Your task to perform on an android device: check the backup settings in the google photos Image 0: 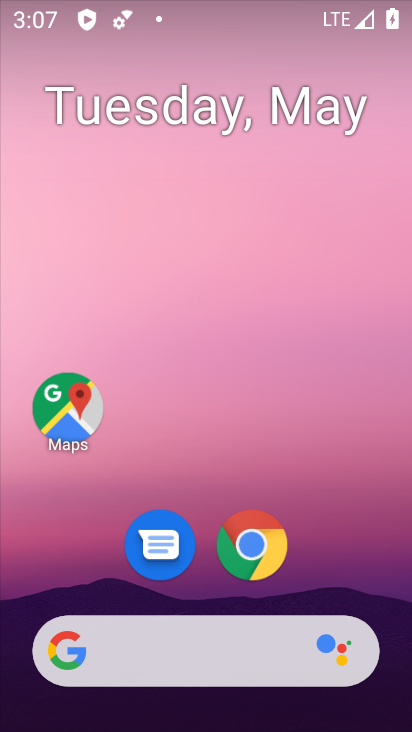
Step 0: drag from (328, 559) to (293, 203)
Your task to perform on an android device: check the backup settings in the google photos Image 1: 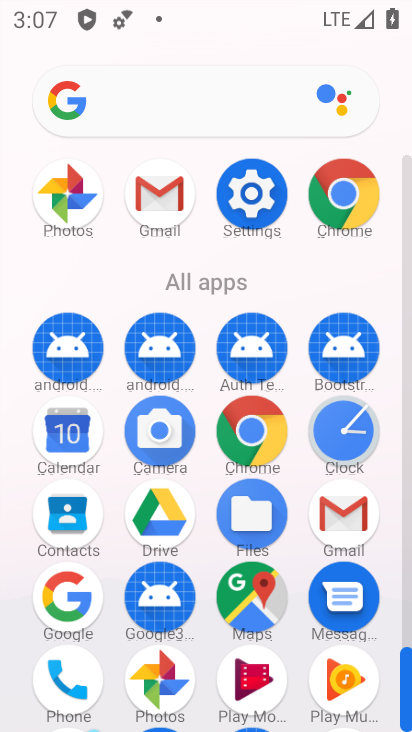
Step 1: click (72, 198)
Your task to perform on an android device: check the backup settings in the google photos Image 2: 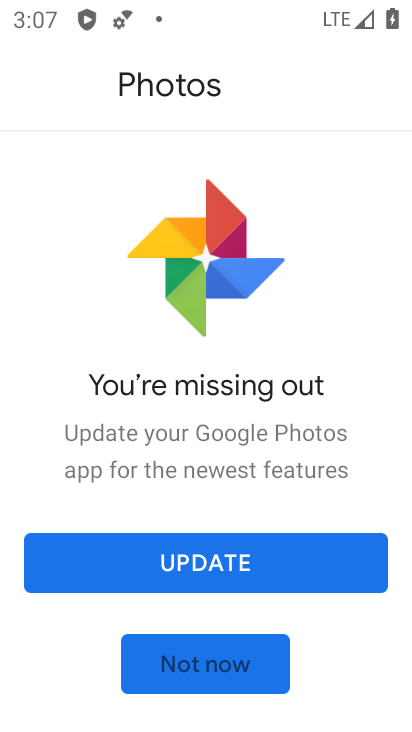
Step 2: click (228, 562)
Your task to perform on an android device: check the backup settings in the google photos Image 3: 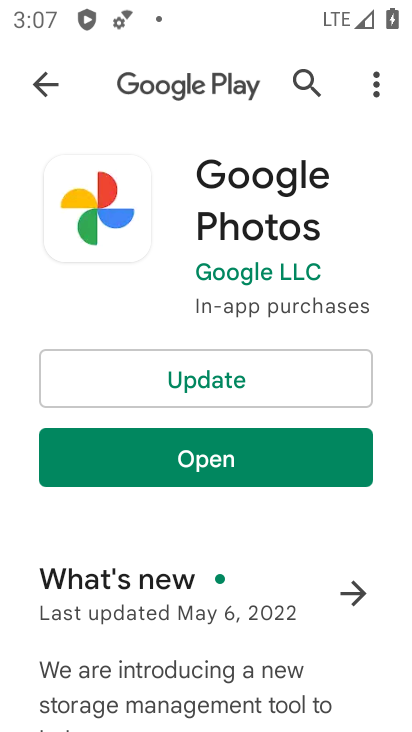
Step 3: click (250, 384)
Your task to perform on an android device: check the backup settings in the google photos Image 4: 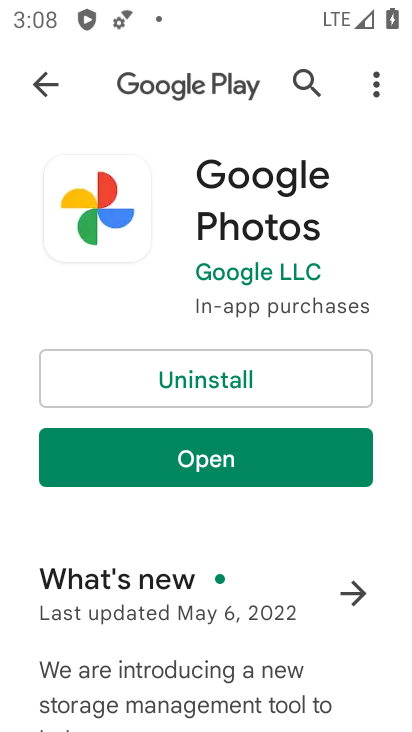
Step 4: click (231, 465)
Your task to perform on an android device: check the backup settings in the google photos Image 5: 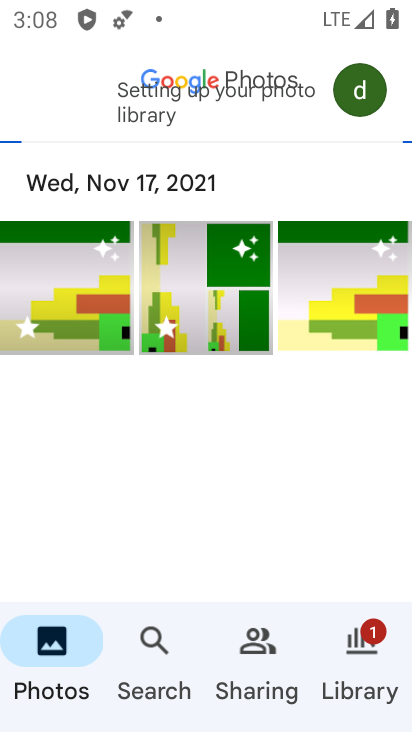
Step 5: click (366, 102)
Your task to perform on an android device: check the backup settings in the google photos Image 6: 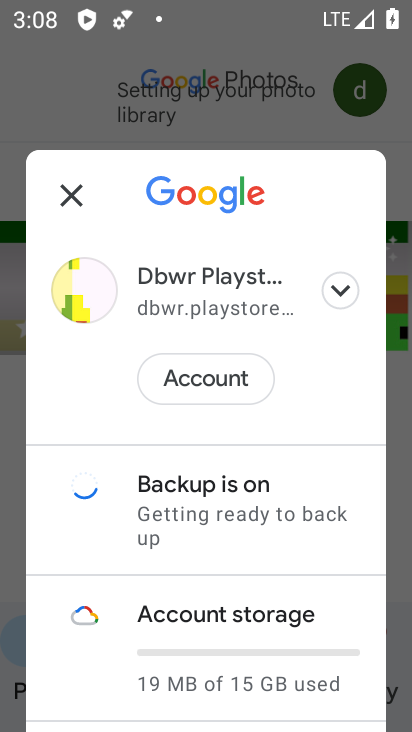
Step 6: click (209, 527)
Your task to perform on an android device: check the backup settings in the google photos Image 7: 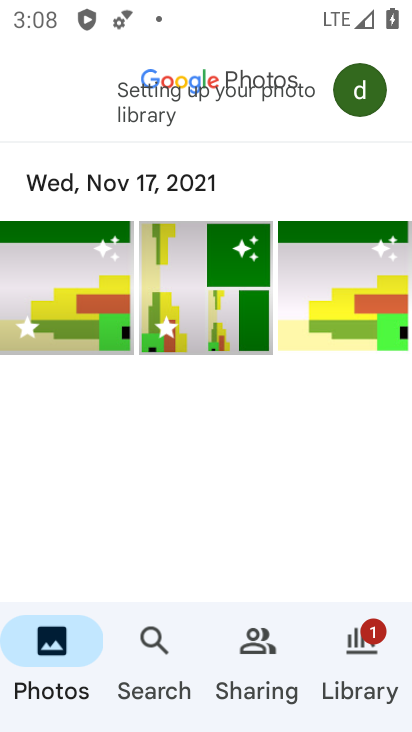
Step 7: click (355, 99)
Your task to perform on an android device: check the backup settings in the google photos Image 8: 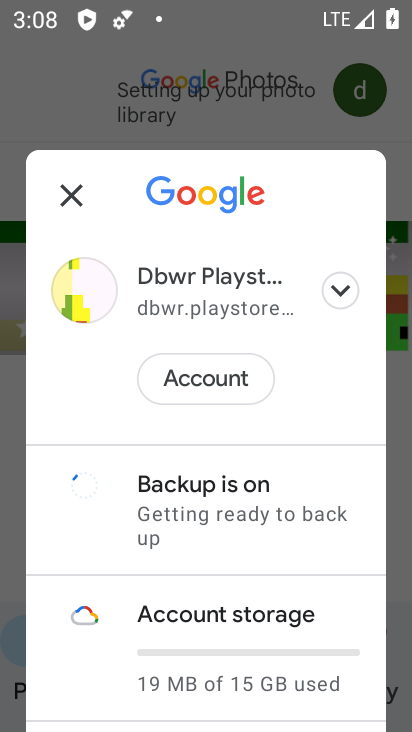
Step 8: click (245, 524)
Your task to perform on an android device: check the backup settings in the google photos Image 9: 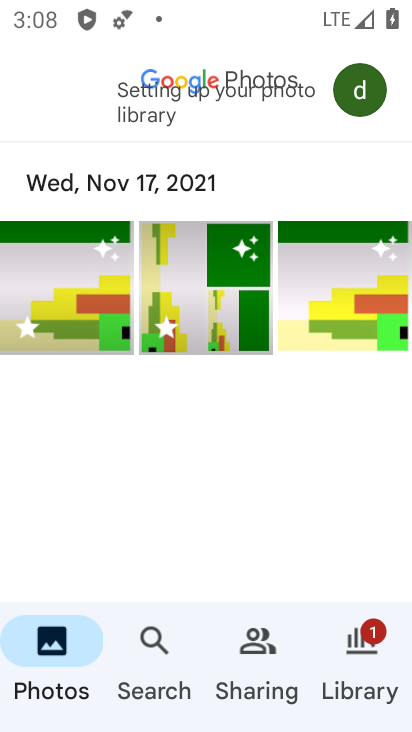
Step 9: click (166, 118)
Your task to perform on an android device: check the backup settings in the google photos Image 10: 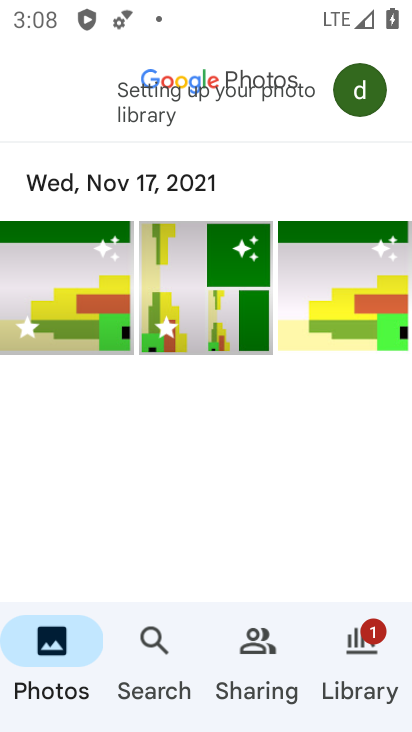
Step 10: click (355, 647)
Your task to perform on an android device: check the backup settings in the google photos Image 11: 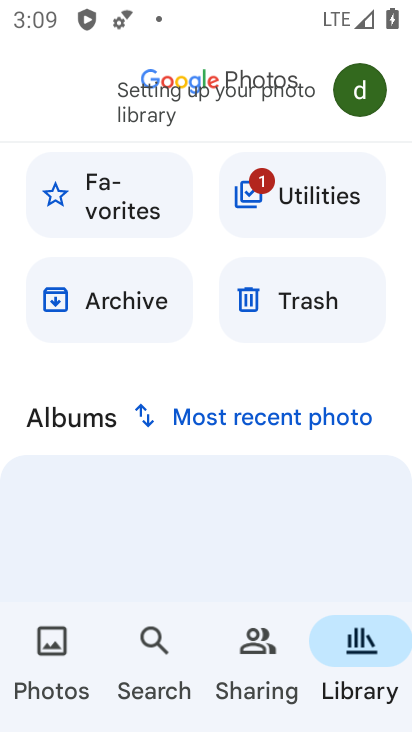
Step 11: click (351, 102)
Your task to perform on an android device: check the backup settings in the google photos Image 12: 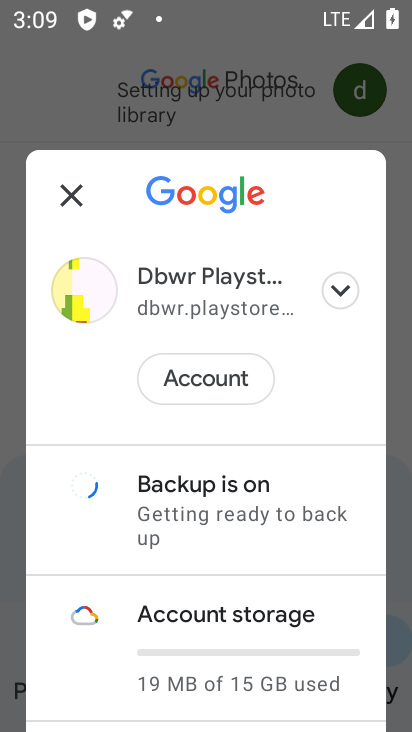
Step 12: drag from (276, 536) to (275, 223)
Your task to perform on an android device: check the backup settings in the google photos Image 13: 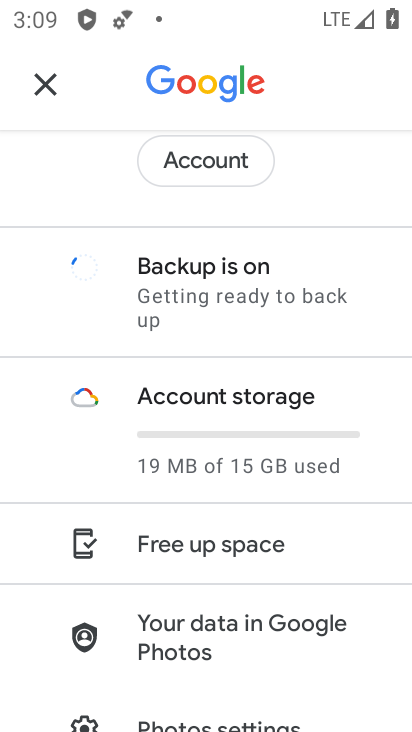
Step 13: drag from (227, 695) to (248, 440)
Your task to perform on an android device: check the backup settings in the google photos Image 14: 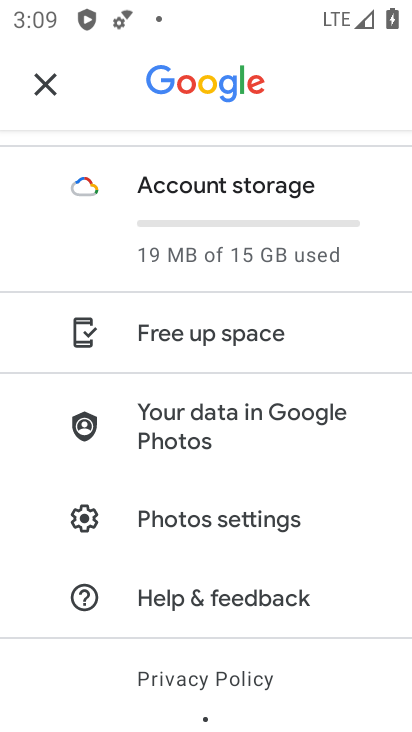
Step 14: click (246, 513)
Your task to perform on an android device: check the backup settings in the google photos Image 15: 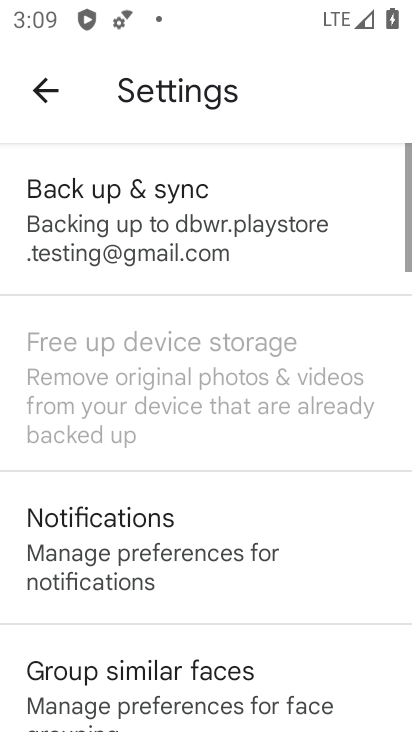
Step 15: click (176, 239)
Your task to perform on an android device: check the backup settings in the google photos Image 16: 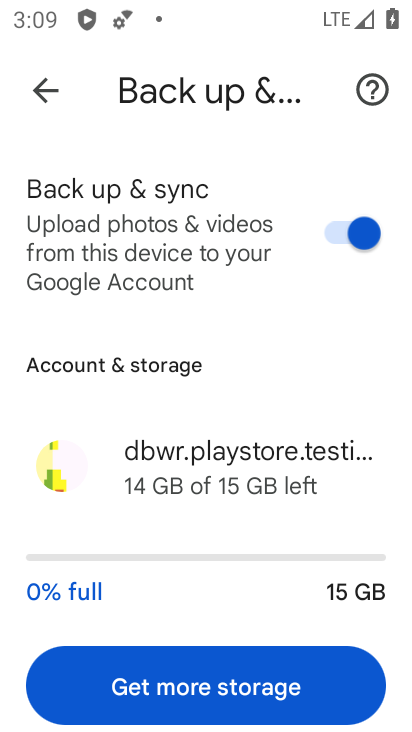
Step 16: task complete